Your task to perform on an android device: Open notification settings Image 0: 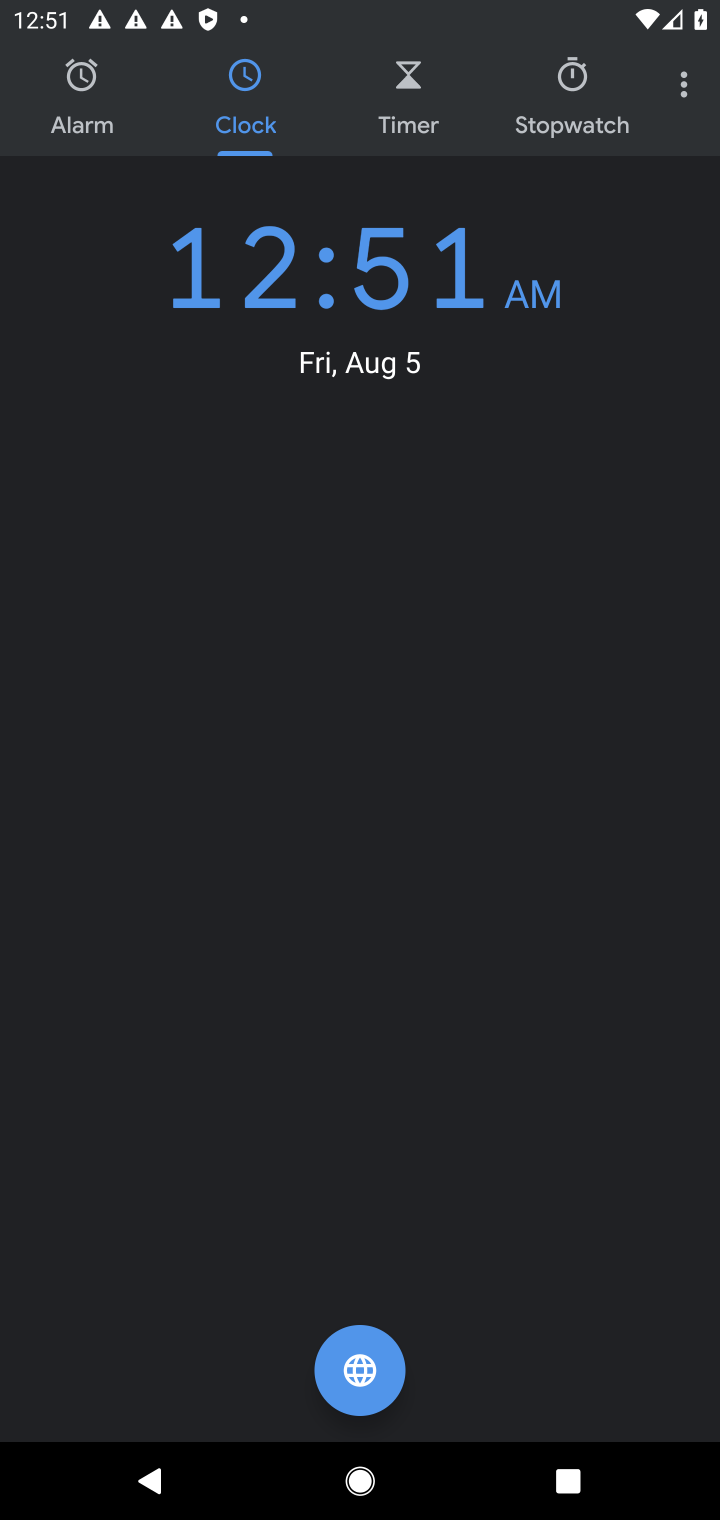
Step 0: press home button
Your task to perform on an android device: Open notification settings Image 1: 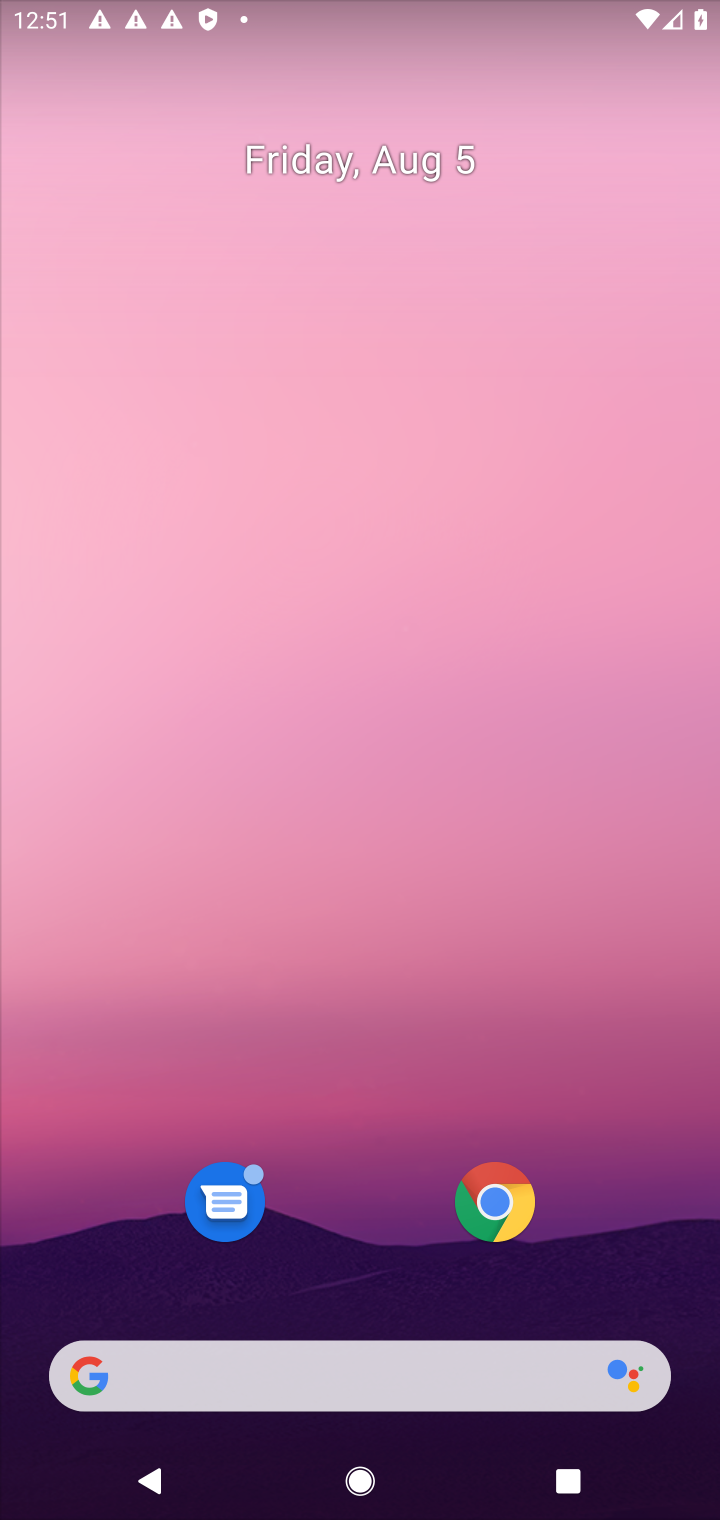
Step 1: drag from (314, 1229) to (430, 94)
Your task to perform on an android device: Open notification settings Image 2: 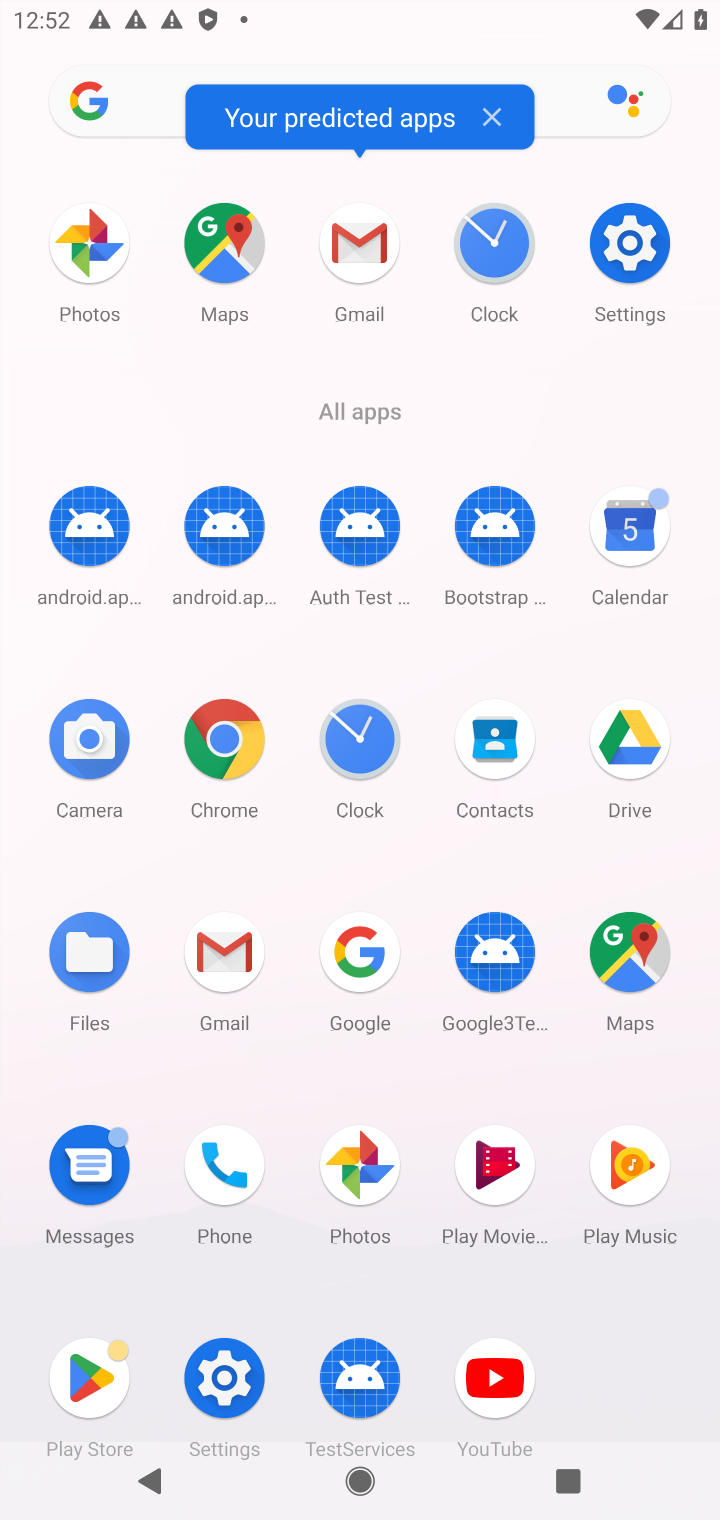
Step 2: click (236, 1376)
Your task to perform on an android device: Open notification settings Image 3: 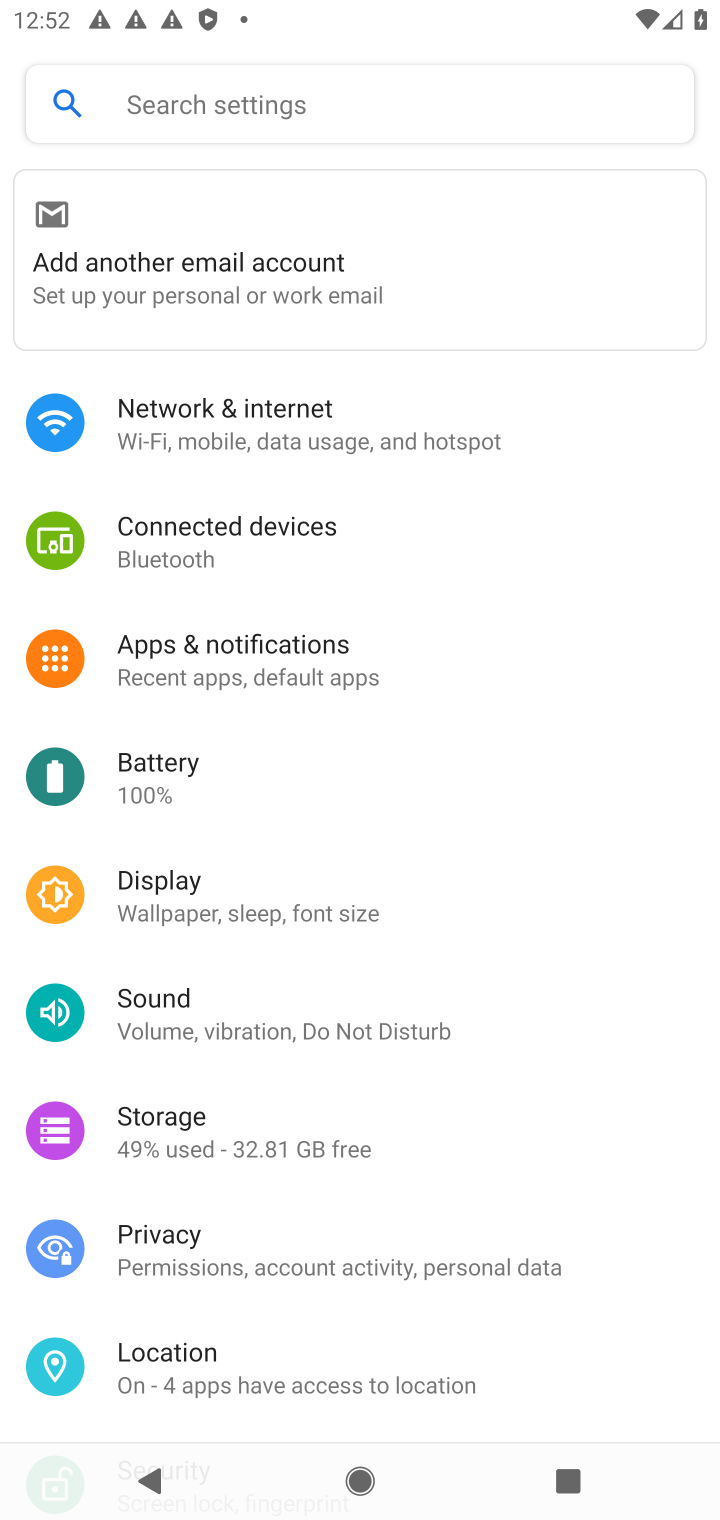
Step 3: click (323, 647)
Your task to perform on an android device: Open notification settings Image 4: 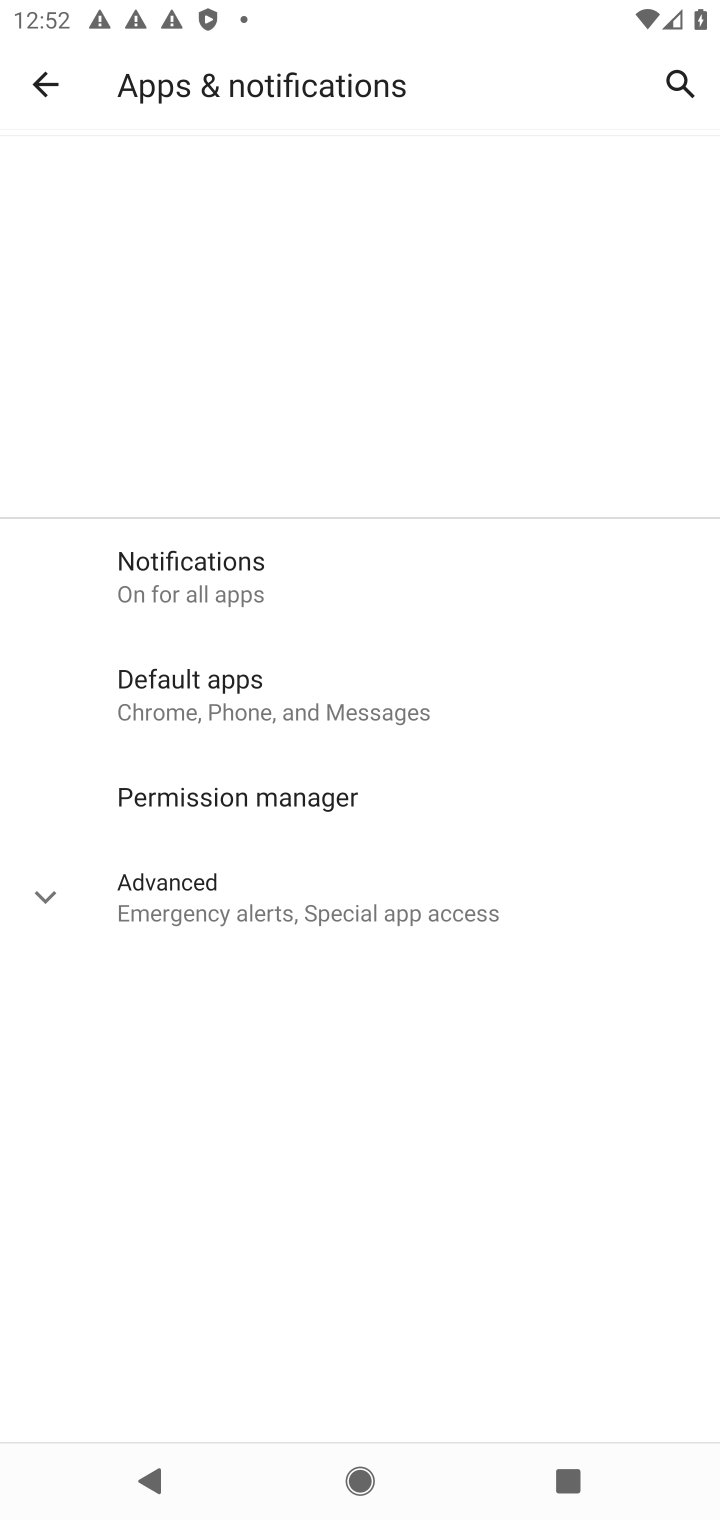
Step 4: click (216, 563)
Your task to perform on an android device: Open notification settings Image 5: 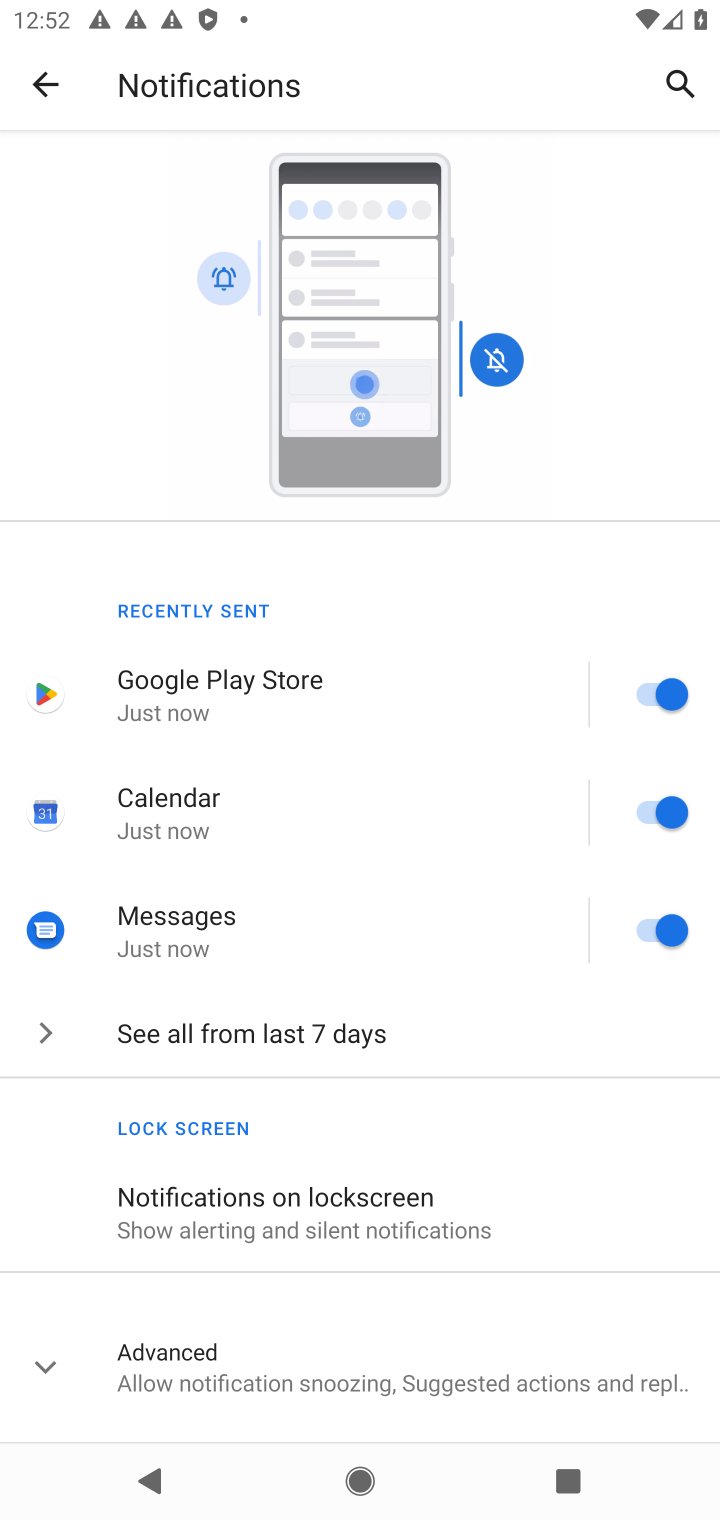
Step 5: task complete